Your task to perform on an android device: Go to internet settings Image 0: 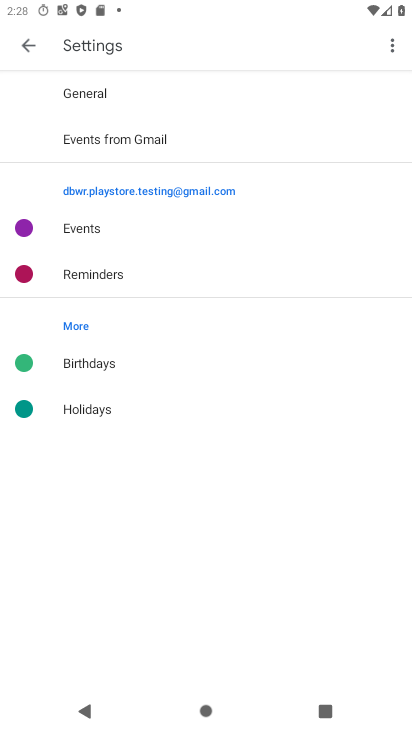
Step 0: press home button
Your task to perform on an android device: Go to internet settings Image 1: 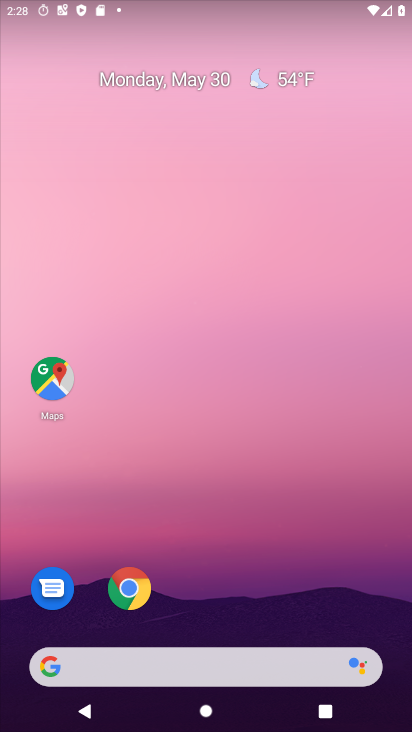
Step 1: drag from (263, 560) to (295, 91)
Your task to perform on an android device: Go to internet settings Image 2: 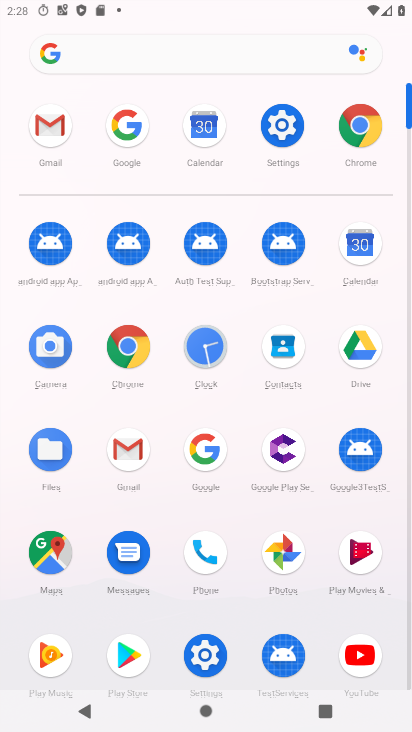
Step 2: click (282, 126)
Your task to perform on an android device: Go to internet settings Image 3: 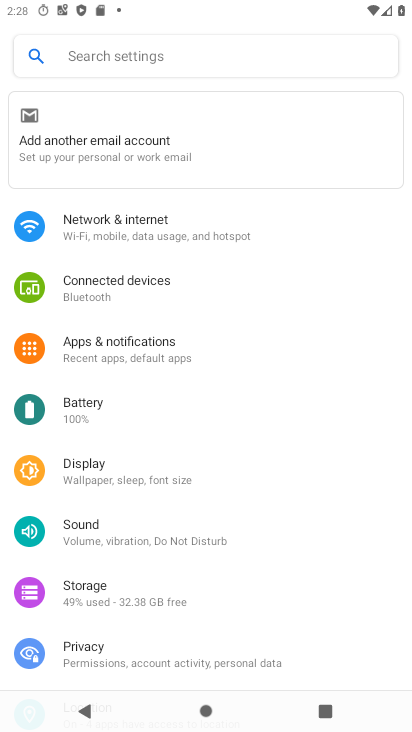
Step 3: click (126, 223)
Your task to perform on an android device: Go to internet settings Image 4: 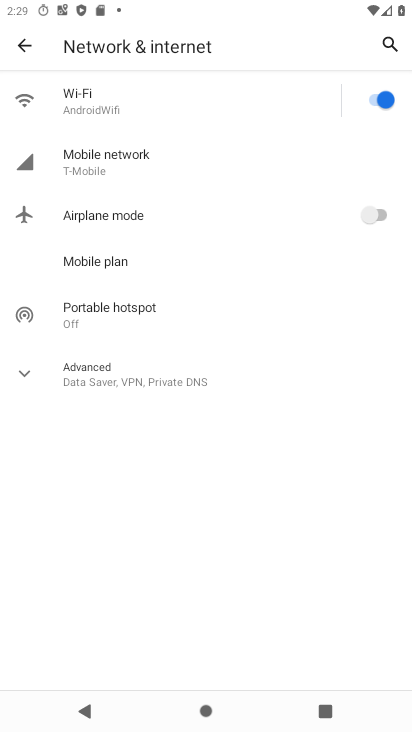
Step 4: click (143, 111)
Your task to perform on an android device: Go to internet settings Image 5: 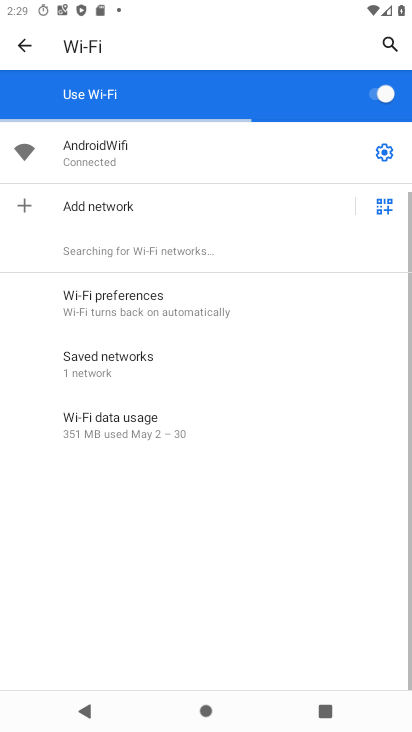
Step 5: click (165, 167)
Your task to perform on an android device: Go to internet settings Image 6: 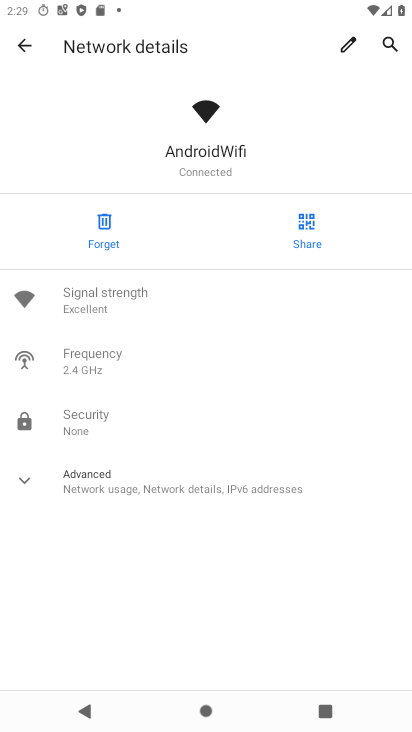
Step 6: task complete